Your task to perform on an android device: What's the weather today? Image 0: 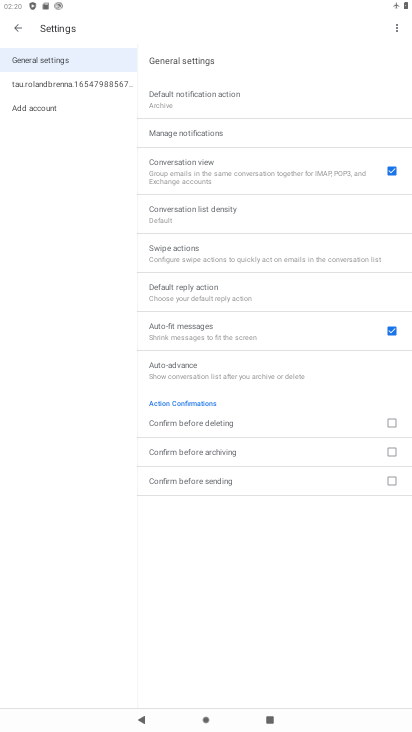
Step 0: press home button
Your task to perform on an android device: What's the weather today? Image 1: 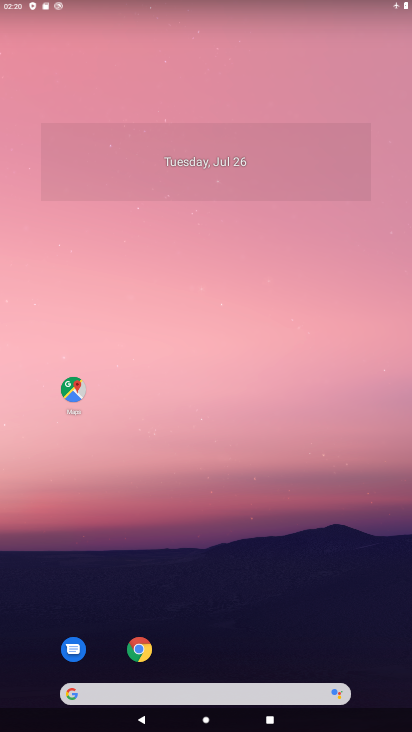
Step 1: drag from (177, 694) to (300, 39)
Your task to perform on an android device: What's the weather today? Image 2: 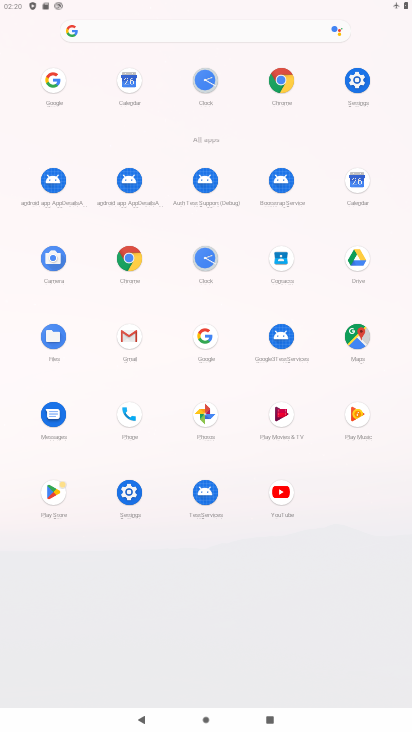
Step 2: click (206, 334)
Your task to perform on an android device: What's the weather today? Image 3: 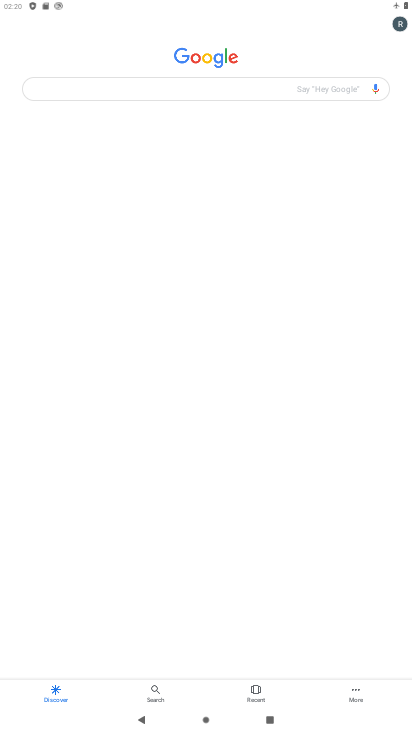
Step 3: click (248, 90)
Your task to perform on an android device: What's the weather today? Image 4: 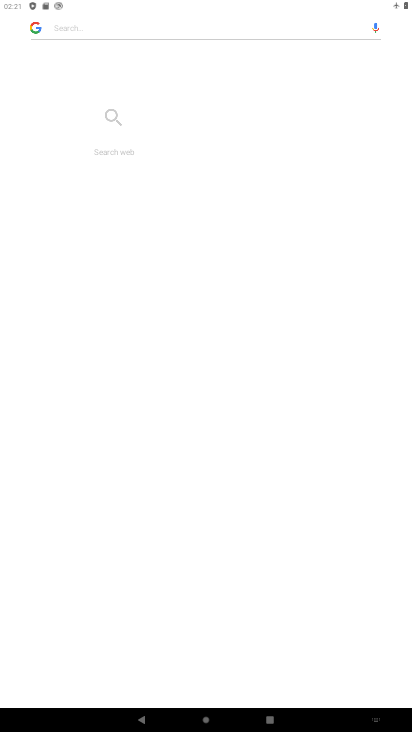
Step 4: type "What's the weather today?"
Your task to perform on an android device: What's the weather today? Image 5: 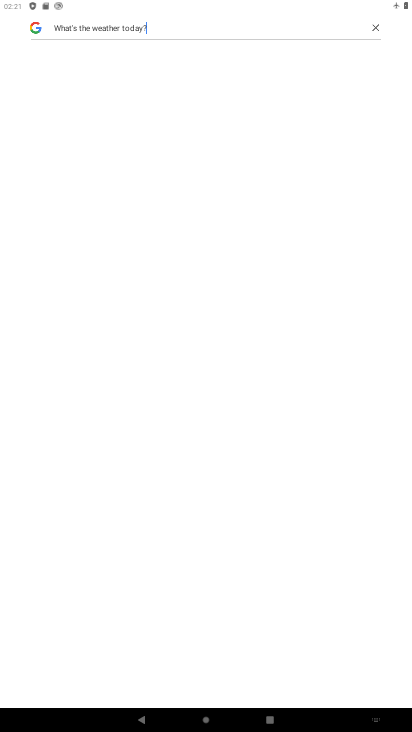
Step 5: task complete